Your task to perform on an android device: turn off airplane mode Image 0: 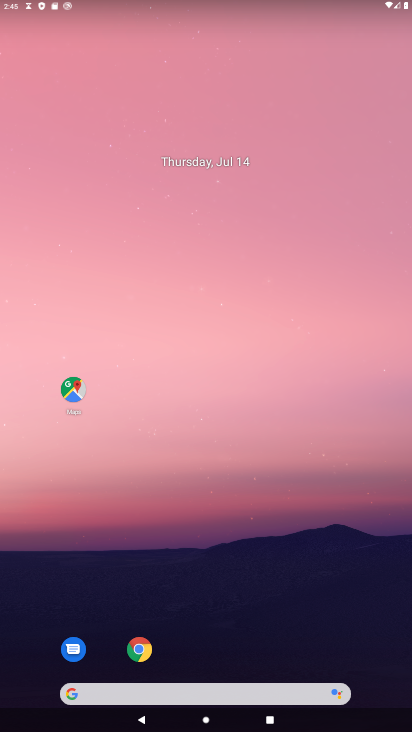
Step 0: drag from (232, 564) to (234, 11)
Your task to perform on an android device: turn off airplane mode Image 1: 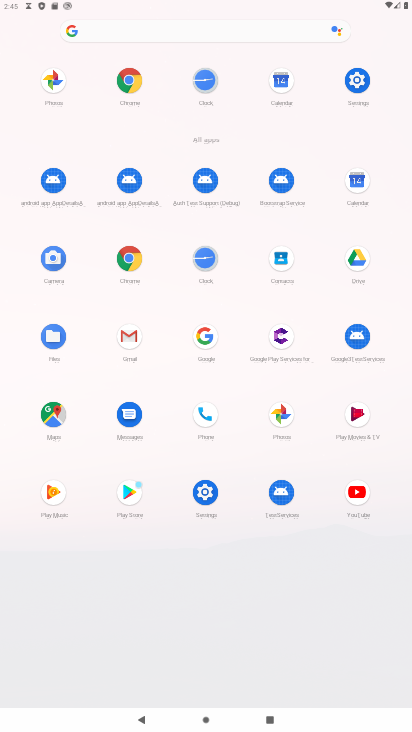
Step 1: click (214, 495)
Your task to perform on an android device: turn off airplane mode Image 2: 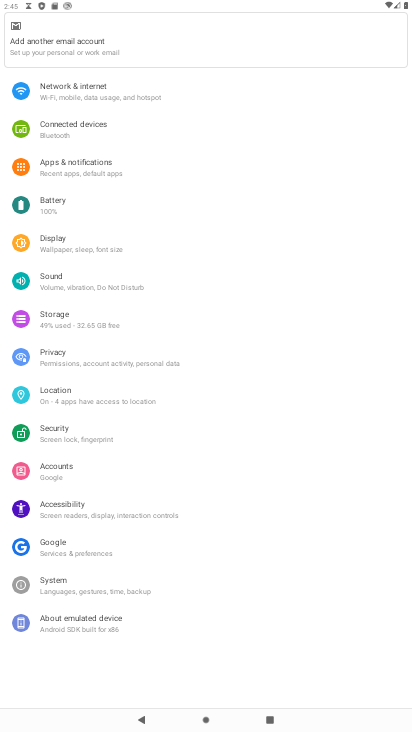
Step 2: click (113, 93)
Your task to perform on an android device: turn off airplane mode Image 3: 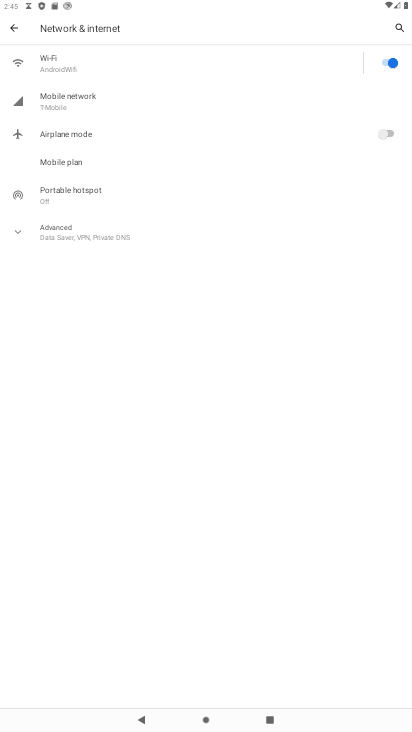
Step 3: task complete